Your task to perform on an android device: change notification settings in the gmail app Image 0: 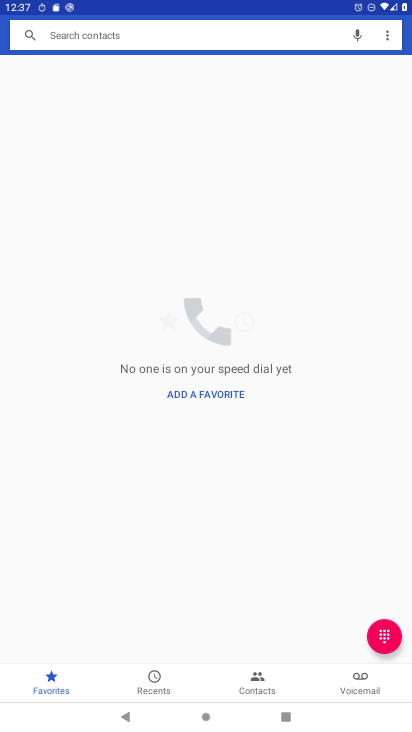
Step 0: press home button
Your task to perform on an android device: change notification settings in the gmail app Image 1: 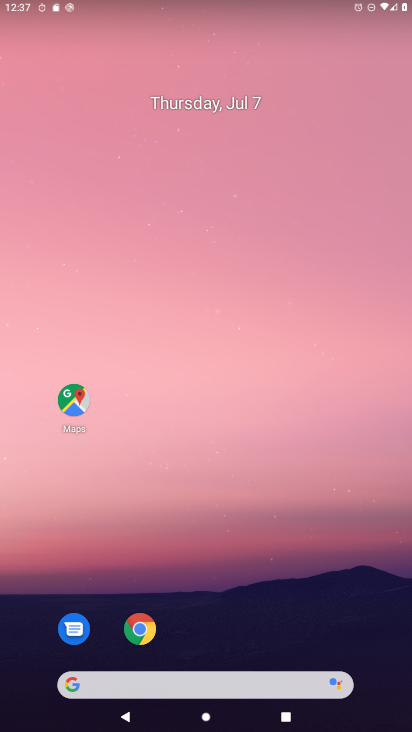
Step 1: drag from (203, 614) to (220, 229)
Your task to perform on an android device: change notification settings in the gmail app Image 2: 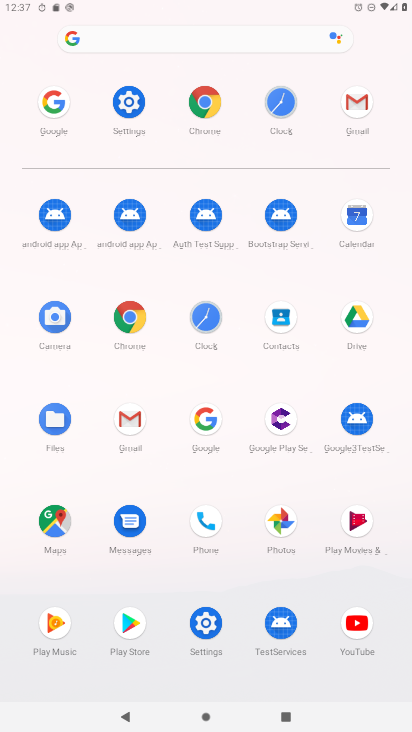
Step 2: click (381, 106)
Your task to perform on an android device: change notification settings in the gmail app Image 3: 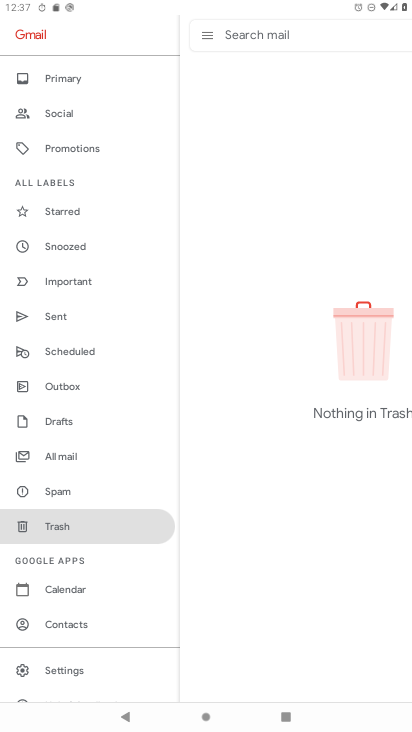
Step 3: click (69, 663)
Your task to perform on an android device: change notification settings in the gmail app Image 4: 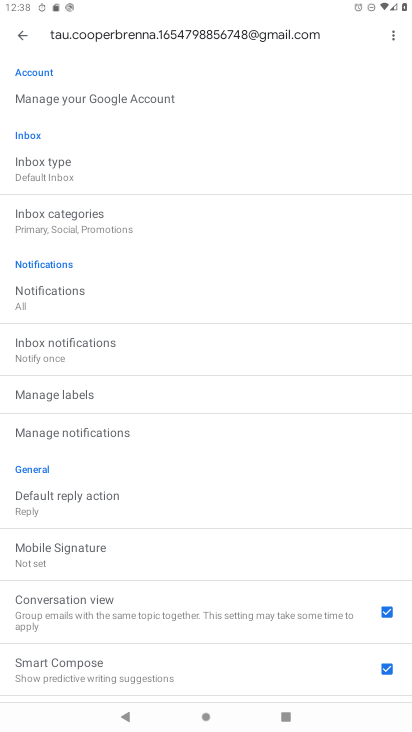
Step 4: click (106, 430)
Your task to perform on an android device: change notification settings in the gmail app Image 5: 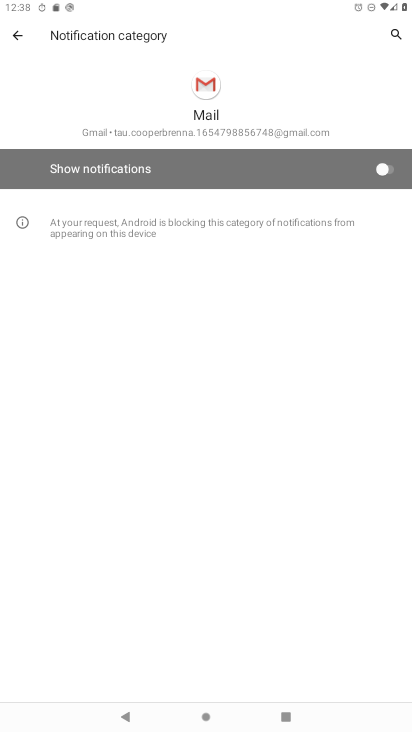
Step 5: click (387, 174)
Your task to perform on an android device: change notification settings in the gmail app Image 6: 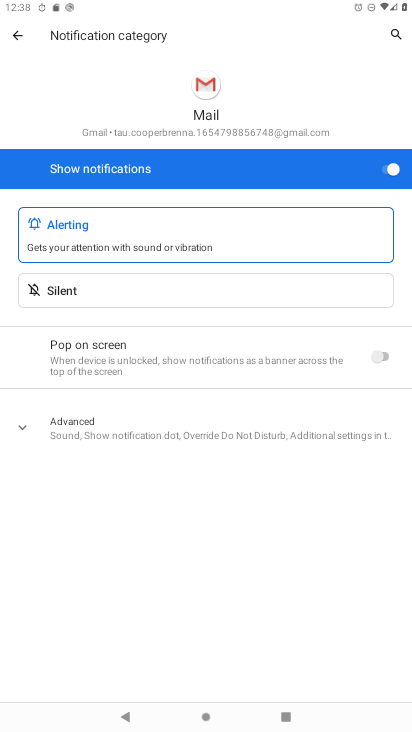
Step 6: task complete